Your task to perform on an android device: turn off improve location accuracy Image 0: 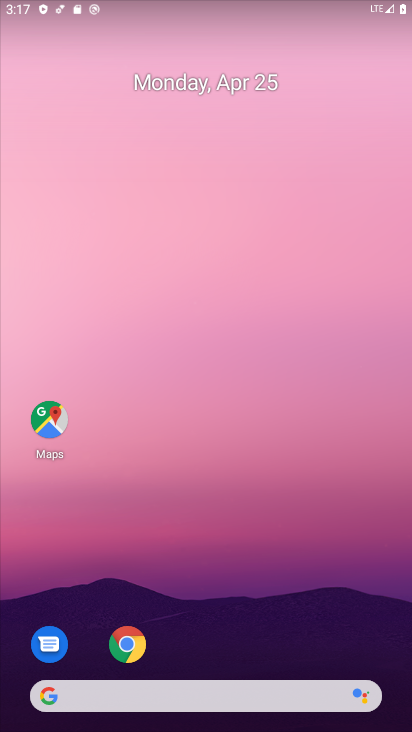
Step 0: drag from (218, 641) to (180, 45)
Your task to perform on an android device: turn off improve location accuracy Image 1: 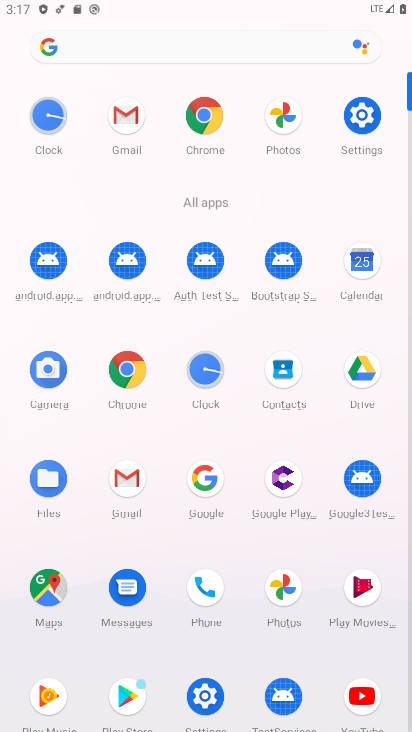
Step 1: click (362, 112)
Your task to perform on an android device: turn off improve location accuracy Image 2: 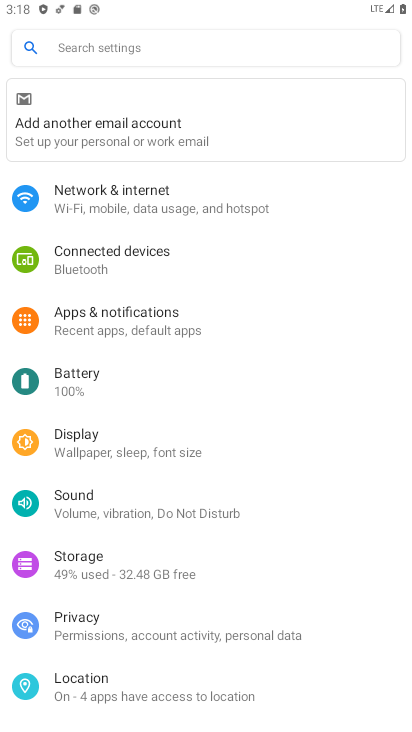
Step 2: click (144, 691)
Your task to perform on an android device: turn off improve location accuracy Image 3: 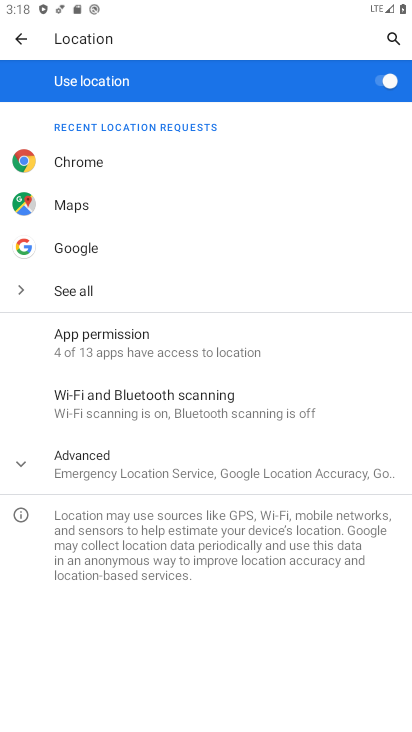
Step 3: click (228, 466)
Your task to perform on an android device: turn off improve location accuracy Image 4: 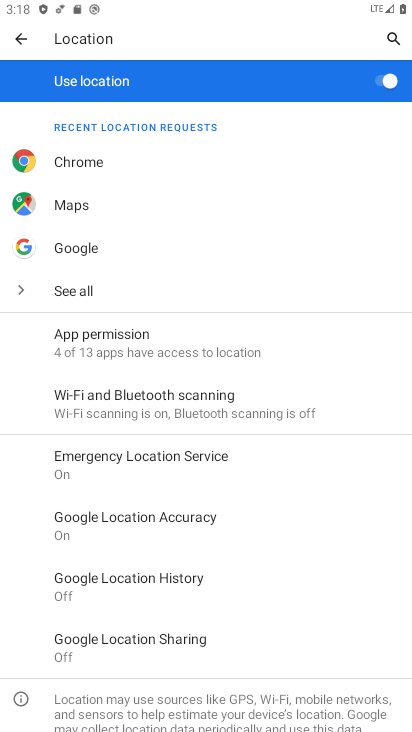
Step 4: click (218, 541)
Your task to perform on an android device: turn off improve location accuracy Image 5: 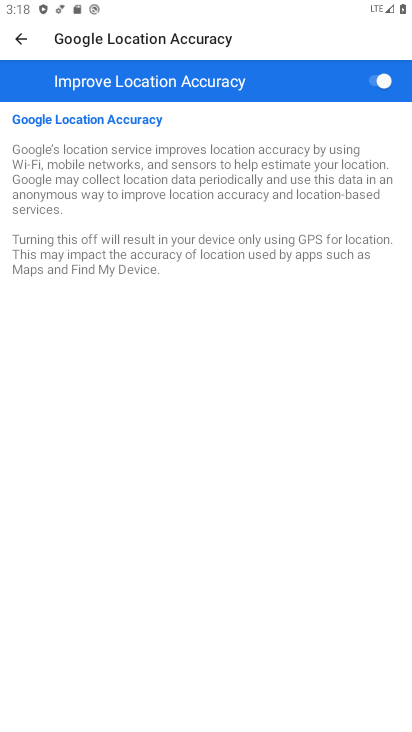
Step 5: click (370, 95)
Your task to perform on an android device: turn off improve location accuracy Image 6: 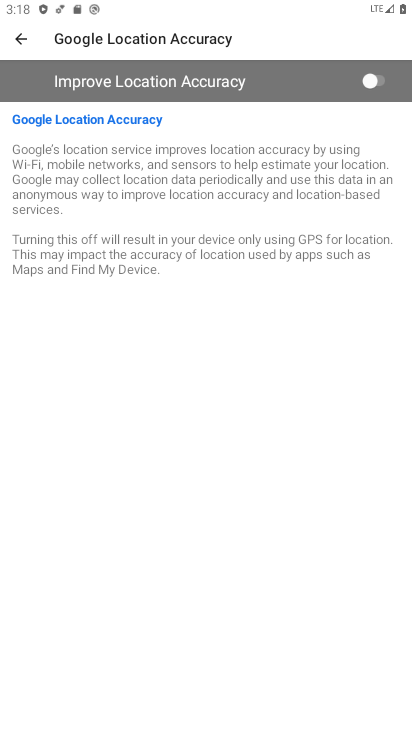
Step 6: task complete